Your task to perform on an android device: Open maps Image 0: 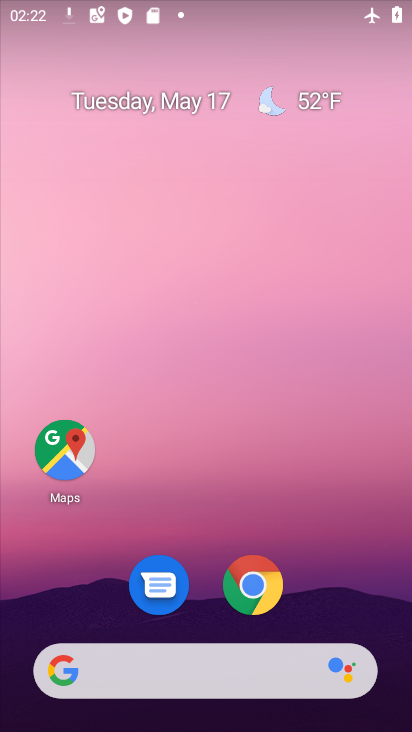
Step 0: click (59, 441)
Your task to perform on an android device: Open maps Image 1: 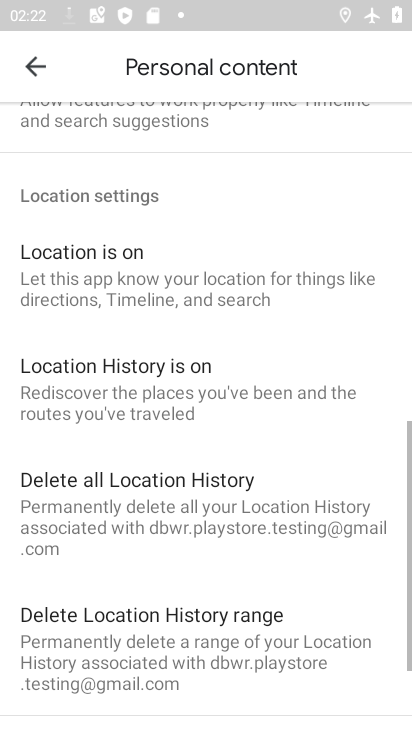
Step 1: click (37, 60)
Your task to perform on an android device: Open maps Image 2: 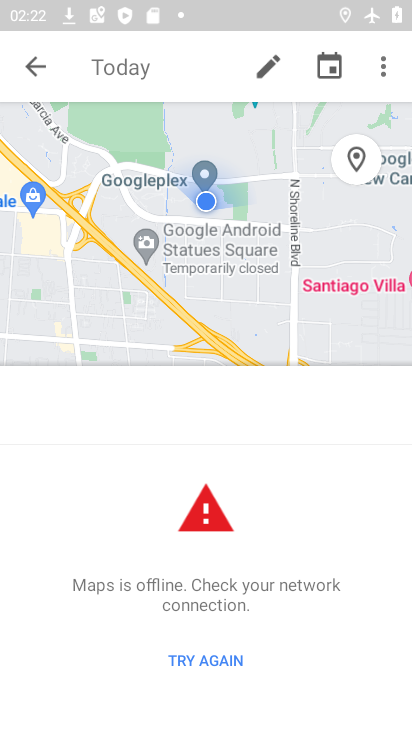
Step 2: click (37, 60)
Your task to perform on an android device: Open maps Image 3: 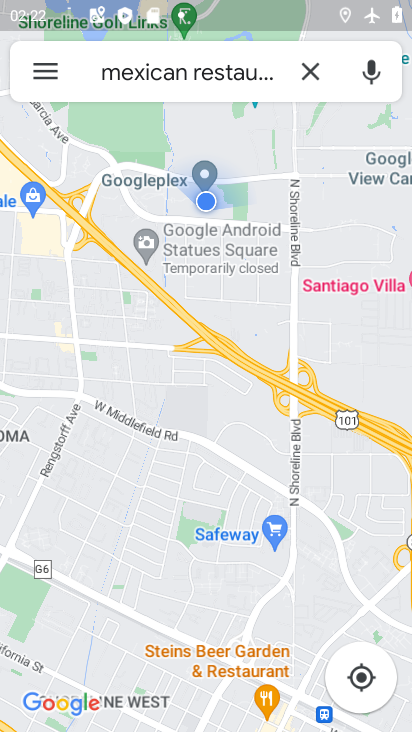
Step 3: click (305, 58)
Your task to perform on an android device: Open maps Image 4: 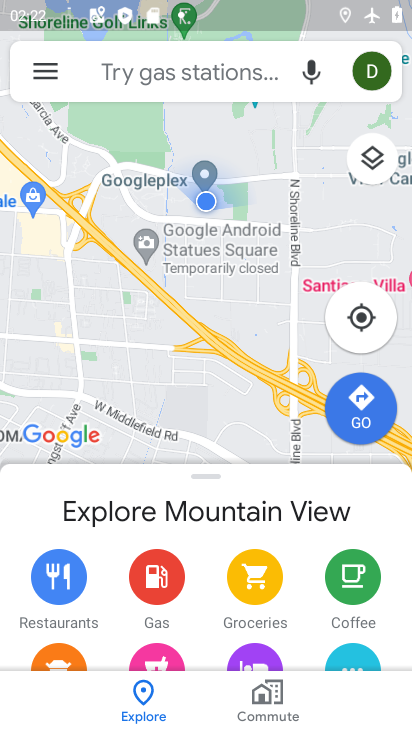
Step 4: task complete